Your task to perform on an android device: Open the calendar app, open the side menu, and click the "Day" option Image 0: 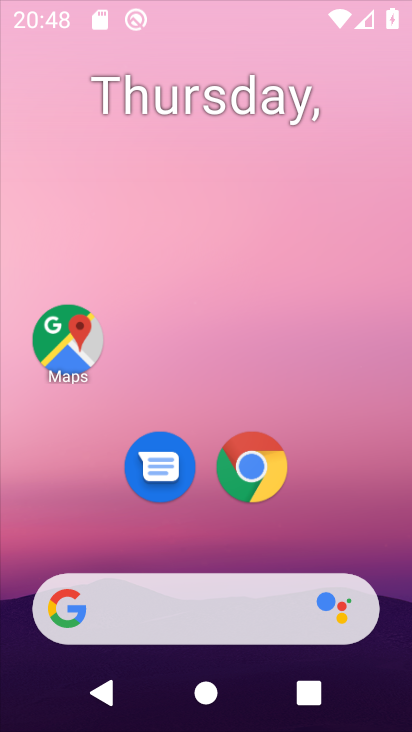
Step 0: click (282, 264)
Your task to perform on an android device: Open the calendar app, open the side menu, and click the "Day" option Image 1: 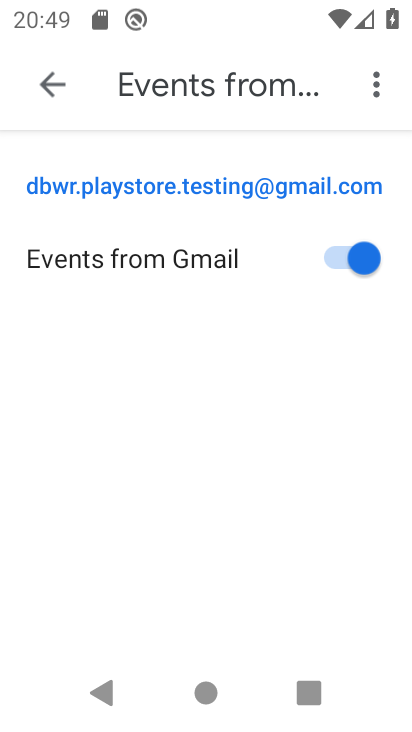
Step 1: press home button
Your task to perform on an android device: Open the calendar app, open the side menu, and click the "Day" option Image 2: 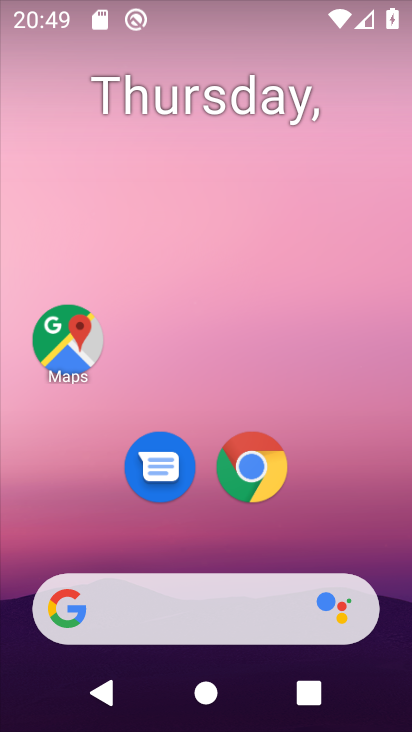
Step 2: drag from (337, 527) to (312, 258)
Your task to perform on an android device: Open the calendar app, open the side menu, and click the "Day" option Image 3: 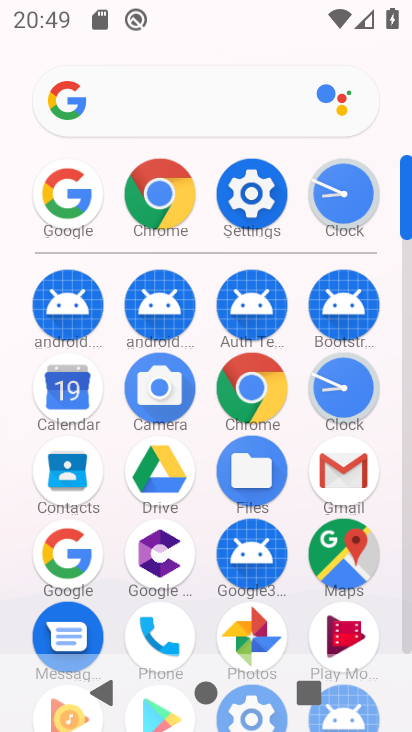
Step 3: click (68, 395)
Your task to perform on an android device: Open the calendar app, open the side menu, and click the "Day" option Image 4: 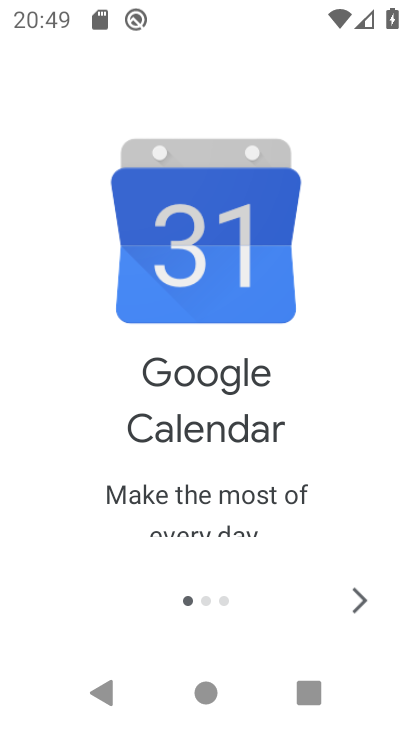
Step 4: click (371, 601)
Your task to perform on an android device: Open the calendar app, open the side menu, and click the "Day" option Image 5: 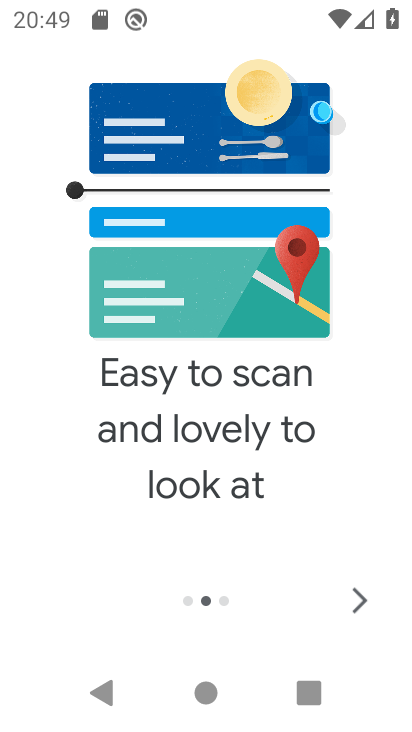
Step 5: click (371, 601)
Your task to perform on an android device: Open the calendar app, open the side menu, and click the "Day" option Image 6: 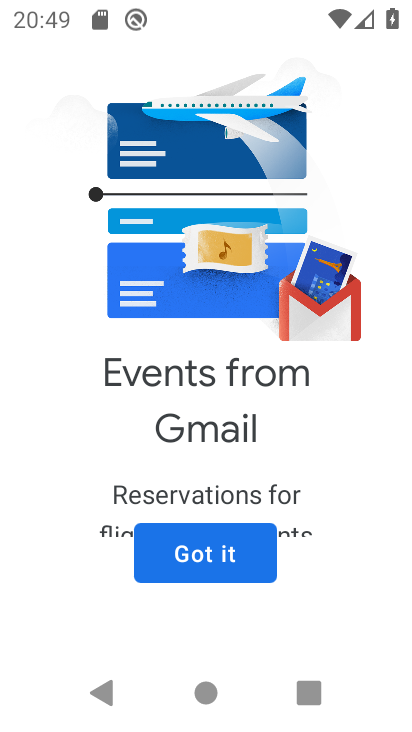
Step 6: click (371, 601)
Your task to perform on an android device: Open the calendar app, open the side menu, and click the "Day" option Image 7: 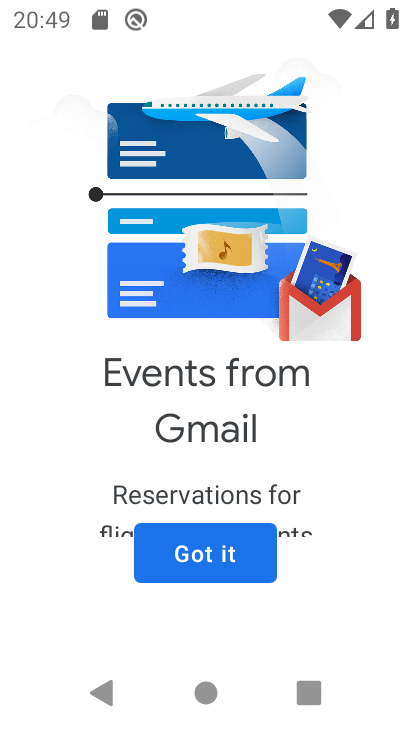
Step 7: click (232, 549)
Your task to perform on an android device: Open the calendar app, open the side menu, and click the "Day" option Image 8: 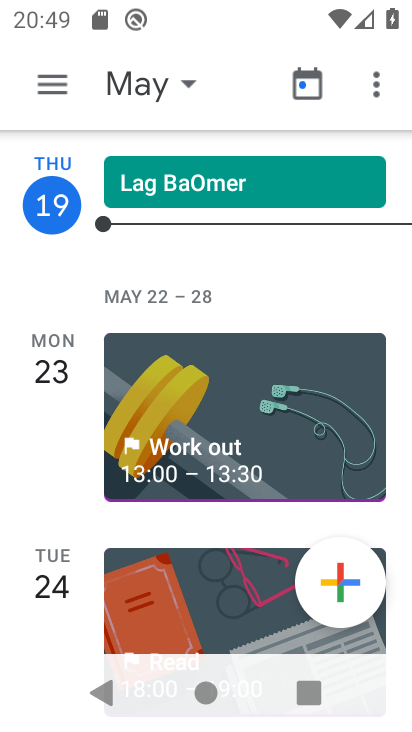
Step 8: click (49, 74)
Your task to perform on an android device: Open the calendar app, open the side menu, and click the "Day" option Image 9: 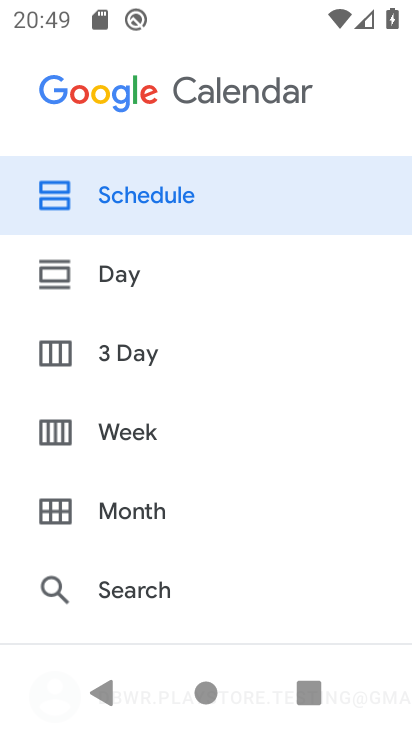
Step 9: click (129, 277)
Your task to perform on an android device: Open the calendar app, open the side menu, and click the "Day" option Image 10: 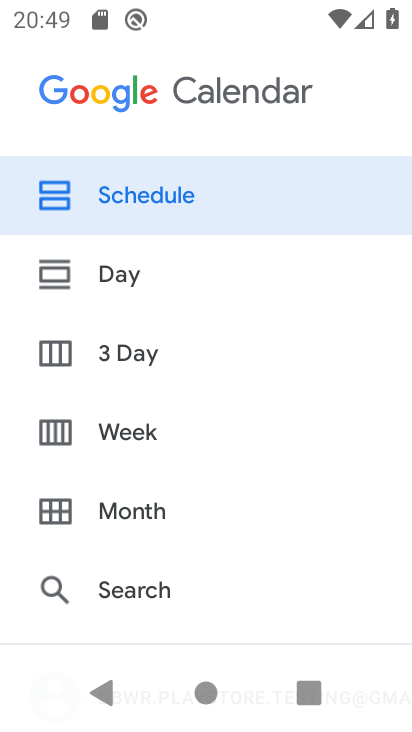
Step 10: click (127, 274)
Your task to perform on an android device: Open the calendar app, open the side menu, and click the "Day" option Image 11: 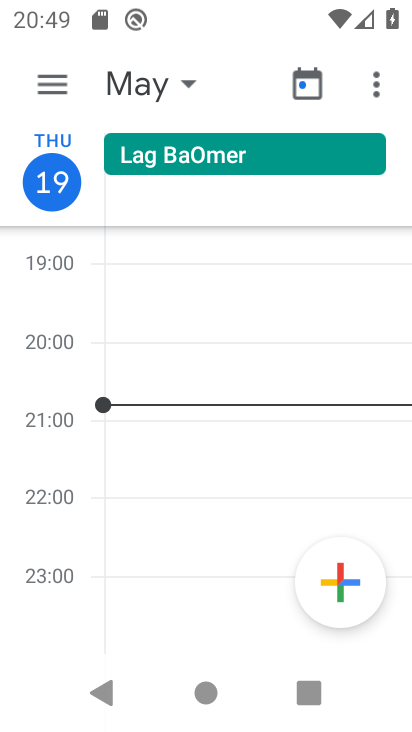
Step 11: click (59, 77)
Your task to perform on an android device: Open the calendar app, open the side menu, and click the "Day" option Image 12: 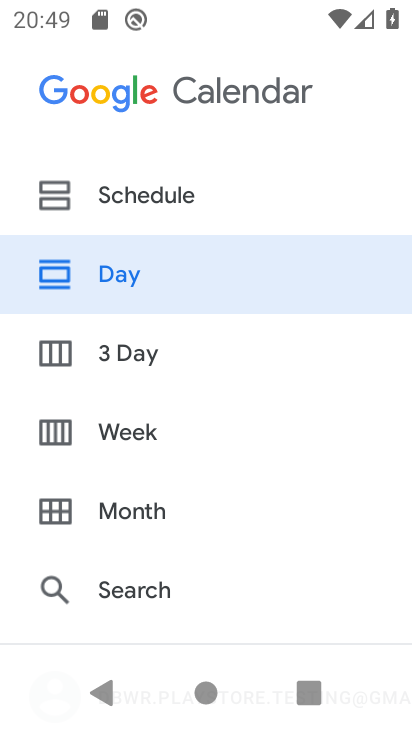
Step 12: click (217, 259)
Your task to perform on an android device: Open the calendar app, open the side menu, and click the "Day" option Image 13: 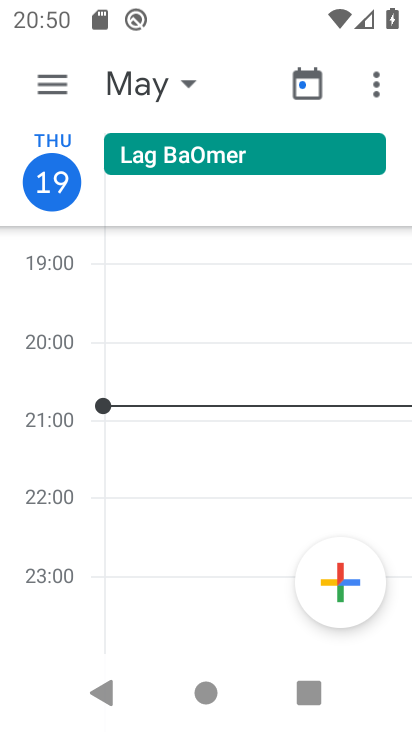
Step 13: task complete